Your task to perform on an android device: change alarm snooze length Image 0: 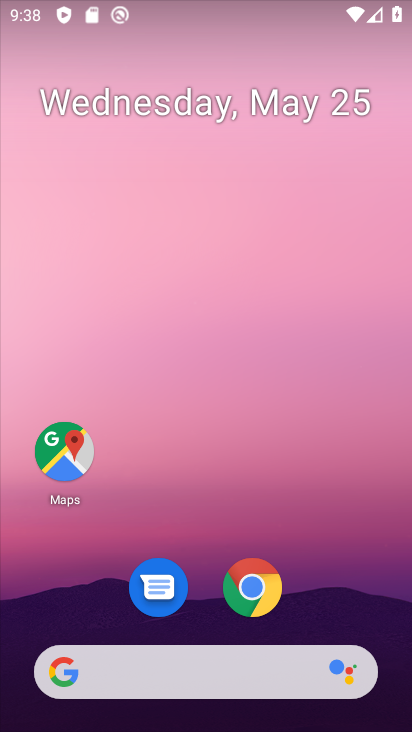
Step 0: drag from (202, 615) to (243, 52)
Your task to perform on an android device: change alarm snooze length Image 1: 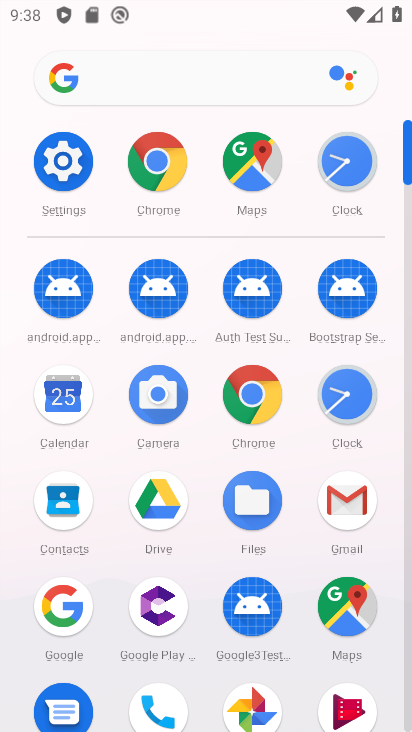
Step 1: click (337, 403)
Your task to perform on an android device: change alarm snooze length Image 2: 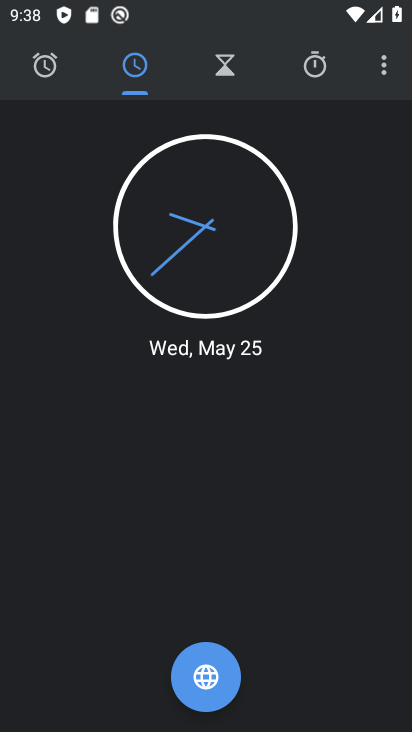
Step 2: click (374, 67)
Your task to perform on an android device: change alarm snooze length Image 3: 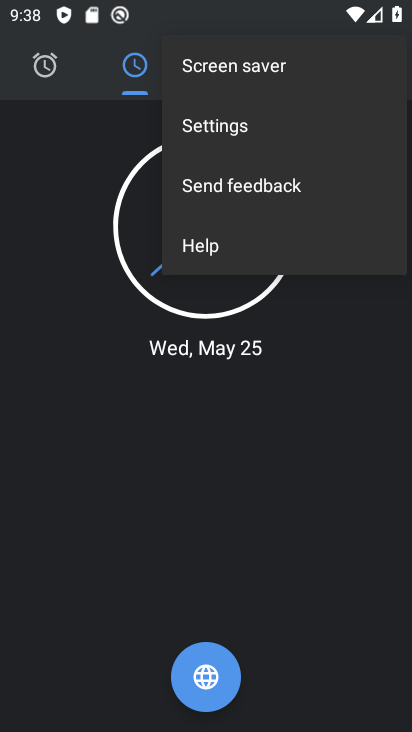
Step 3: click (242, 136)
Your task to perform on an android device: change alarm snooze length Image 4: 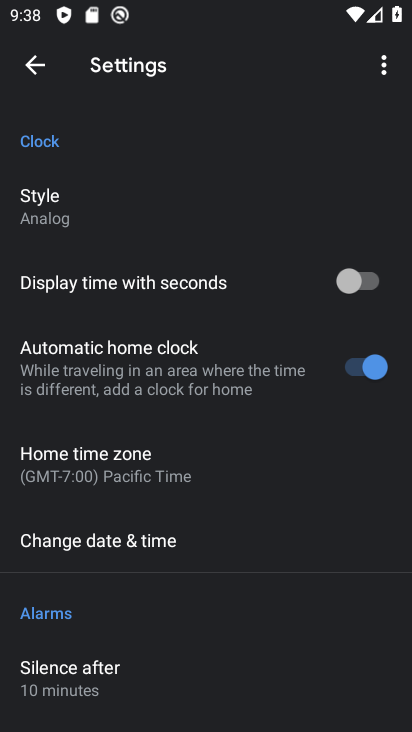
Step 4: drag from (125, 669) to (157, 334)
Your task to perform on an android device: change alarm snooze length Image 5: 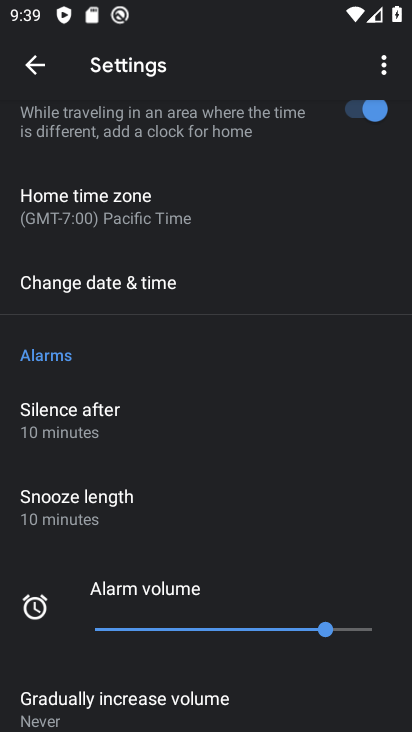
Step 5: click (69, 525)
Your task to perform on an android device: change alarm snooze length Image 6: 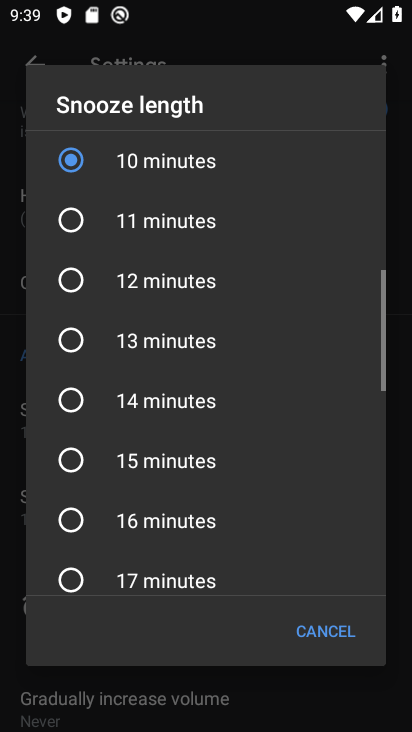
Step 6: click (67, 521)
Your task to perform on an android device: change alarm snooze length Image 7: 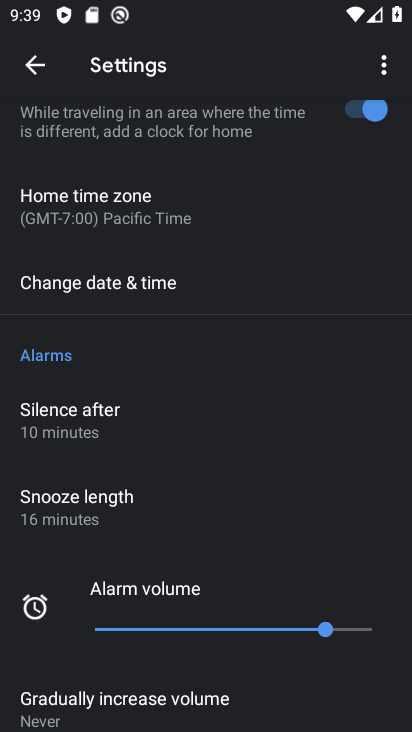
Step 7: task complete